Your task to perform on an android device: open app "Cash App" Image 0: 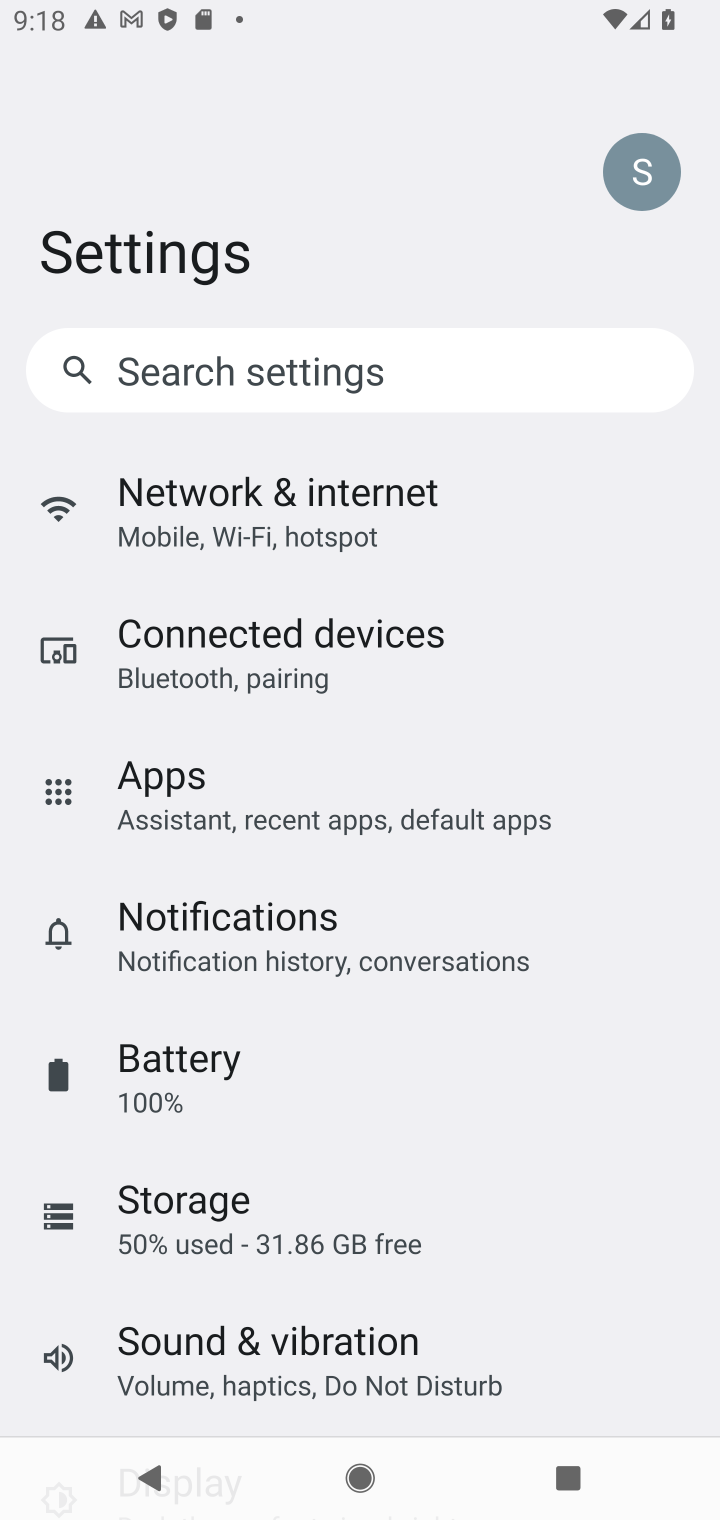
Step 0: press home button
Your task to perform on an android device: open app "Cash App" Image 1: 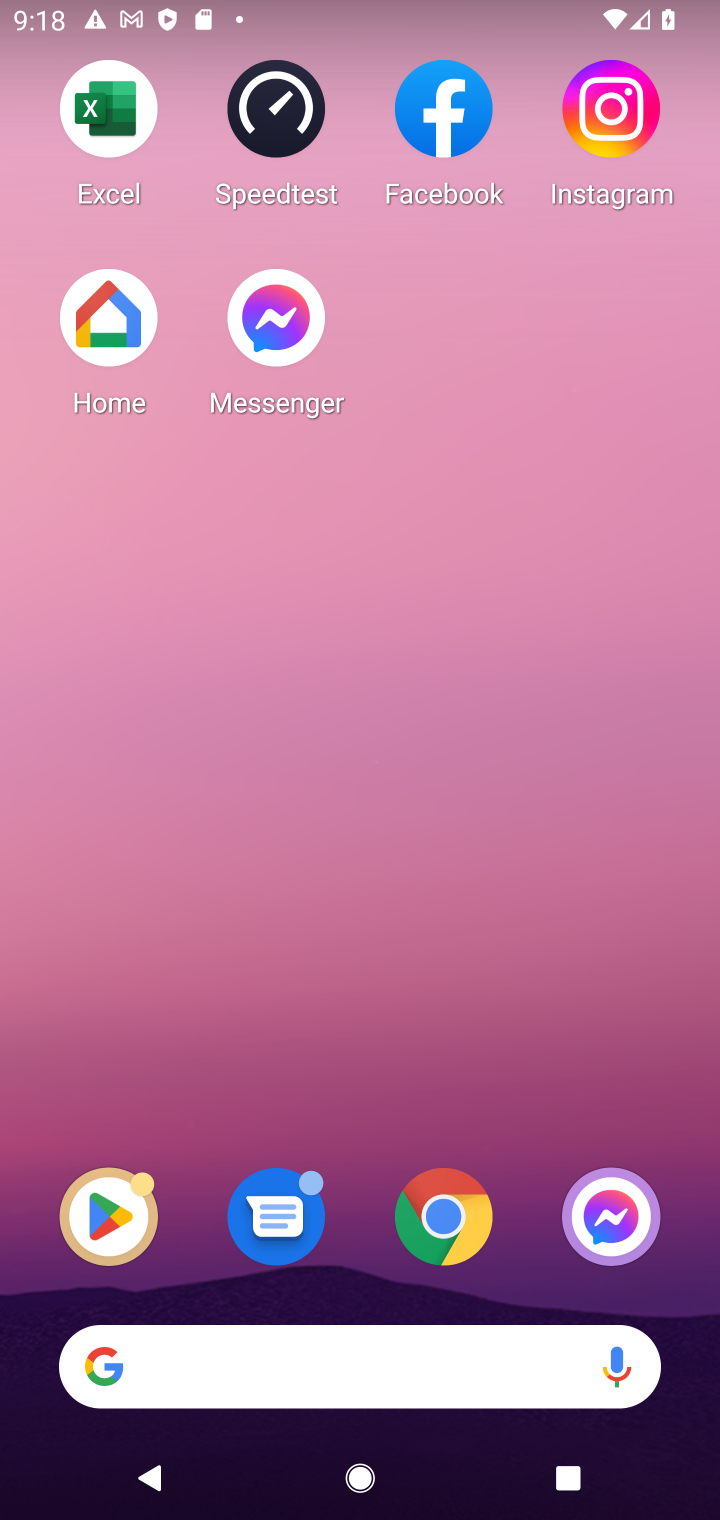
Step 1: click (116, 1207)
Your task to perform on an android device: open app "Cash App" Image 2: 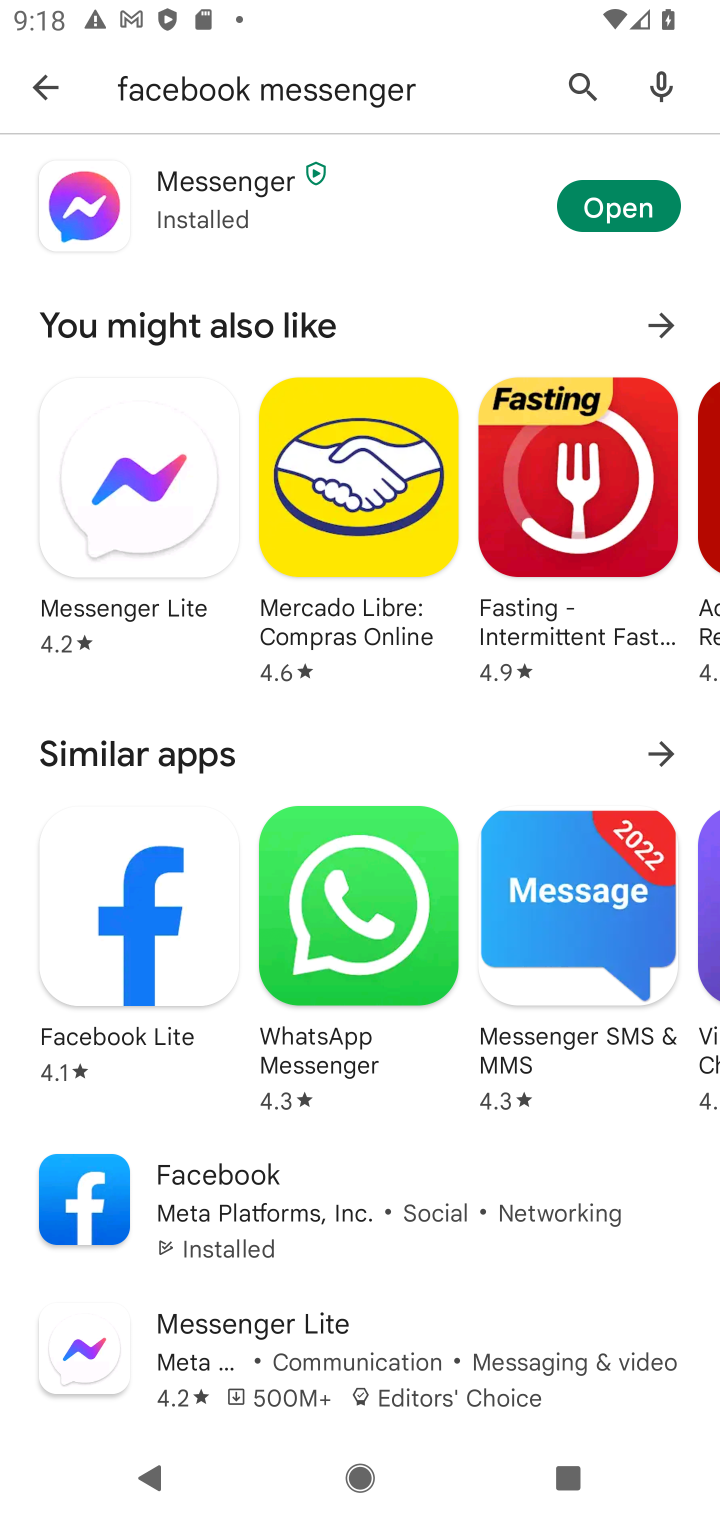
Step 2: click (582, 90)
Your task to perform on an android device: open app "Cash App" Image 3: 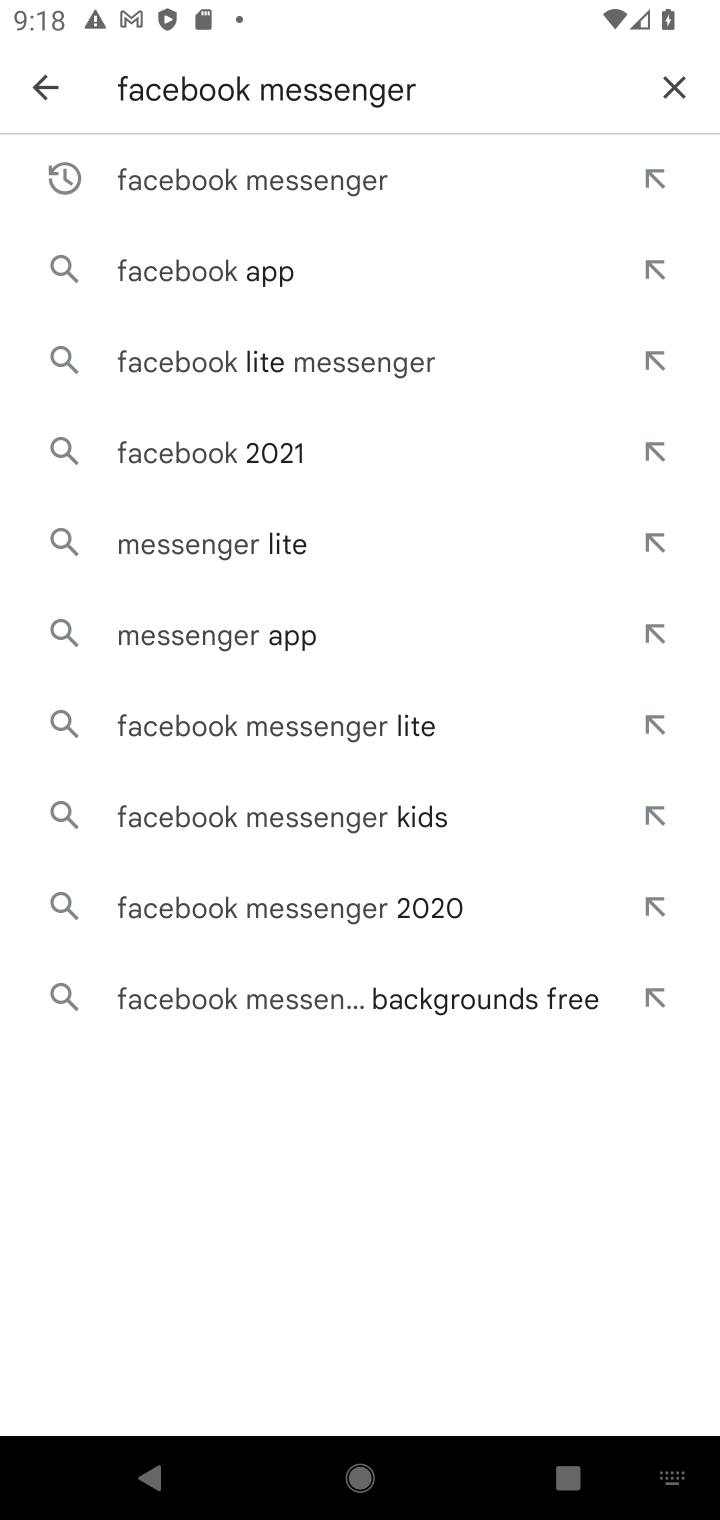
Step 3: click (679, 82)
Your task to perform on an android device: open app "Cash App" Image 4: 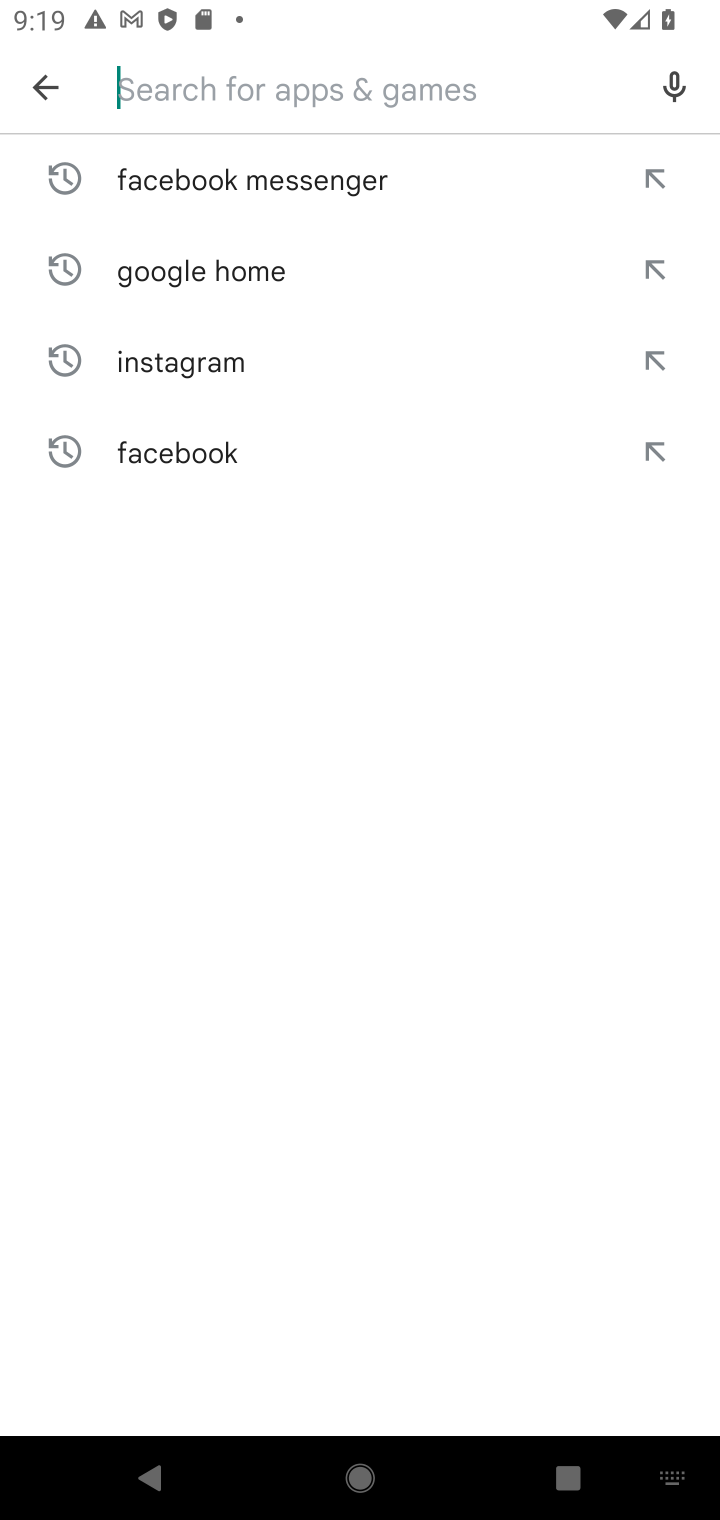
Step 4: type "Cash App"
Your task to perform on an android device: open app "Cash App" Image 5: 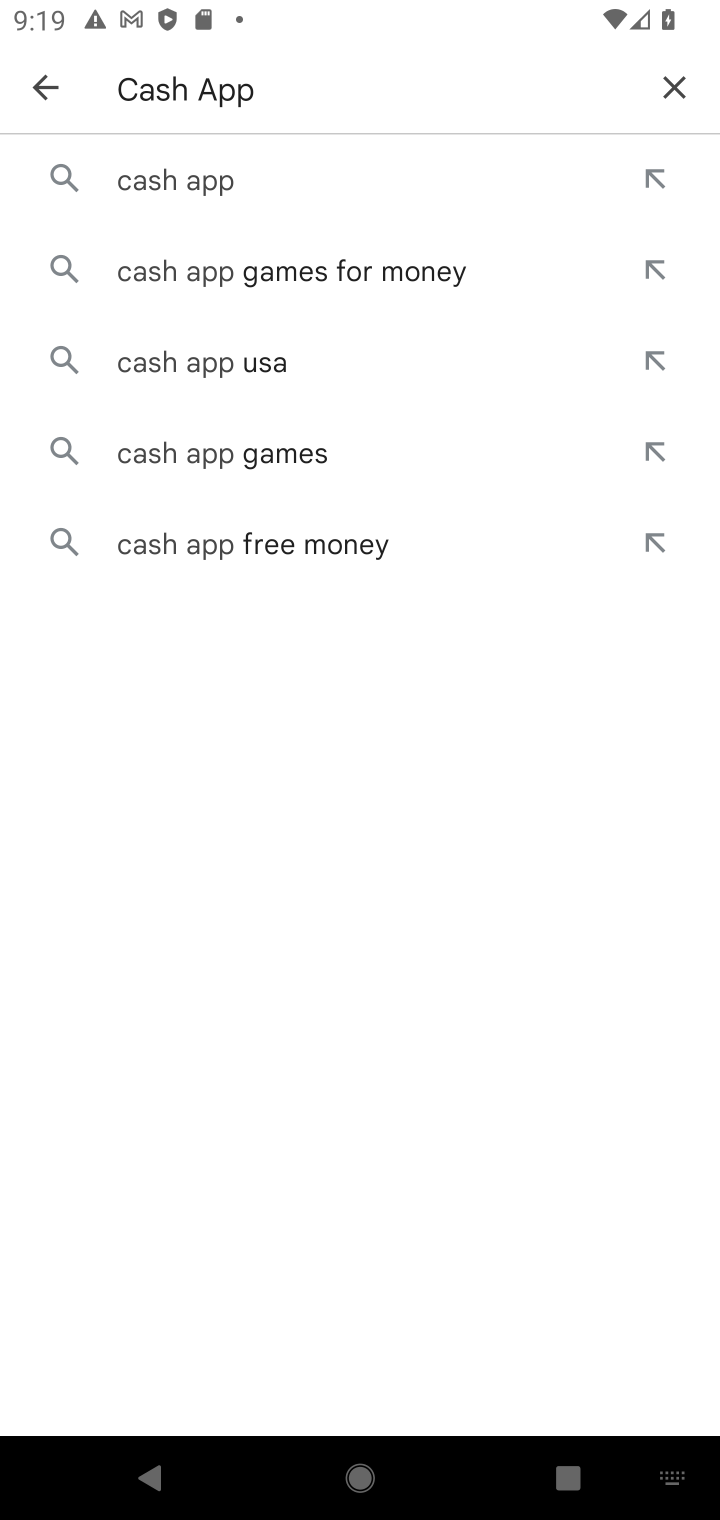
Step 5: click (157, 184)
Your task to perform on an android device: open app "Cash App" Image 6: 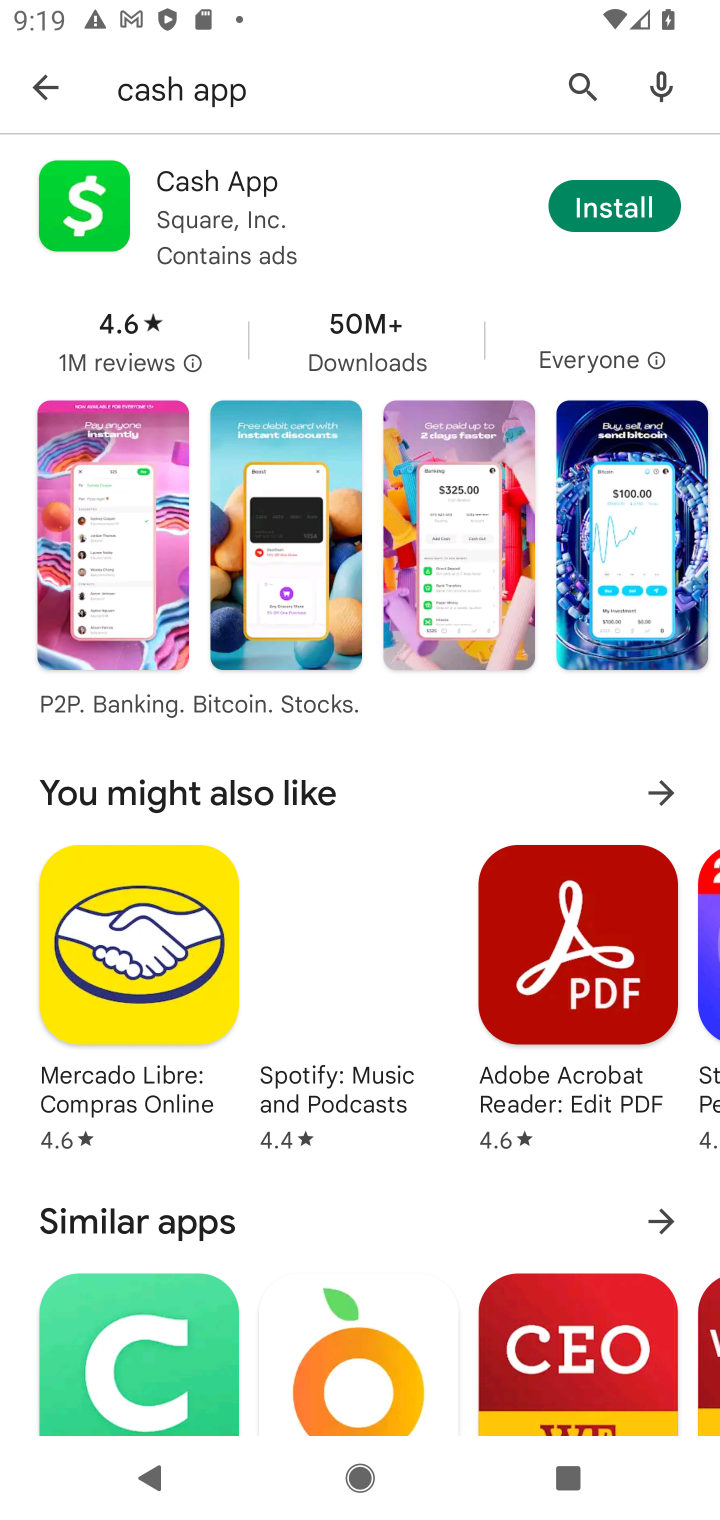
Step 6: task complete